Your task to perform on an android device: turn off sleep mode Image 0: 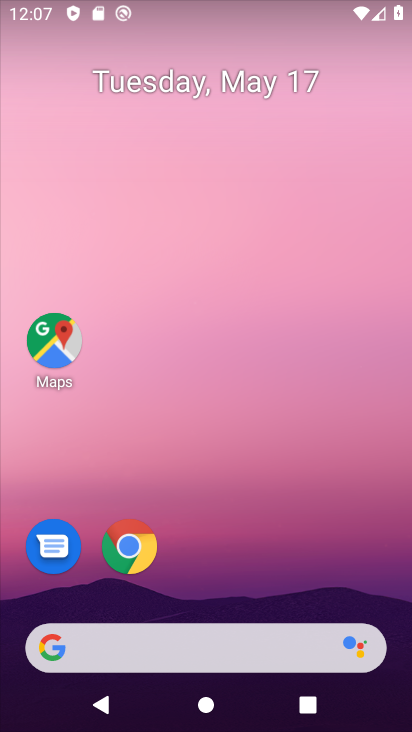
Step 0: drag from (243, 544) to (230, 0)
Your task to perform on an android device: turn off sleep mode Image 1: 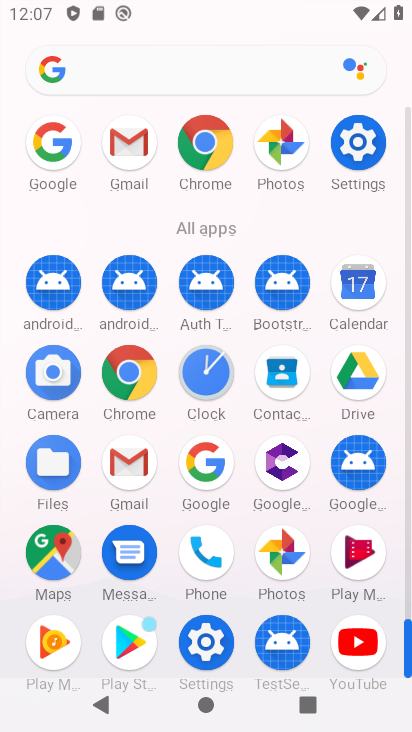
Step 1: click (344, 209)
Your task to perform on an android device: turn off sleep mode Image 2: 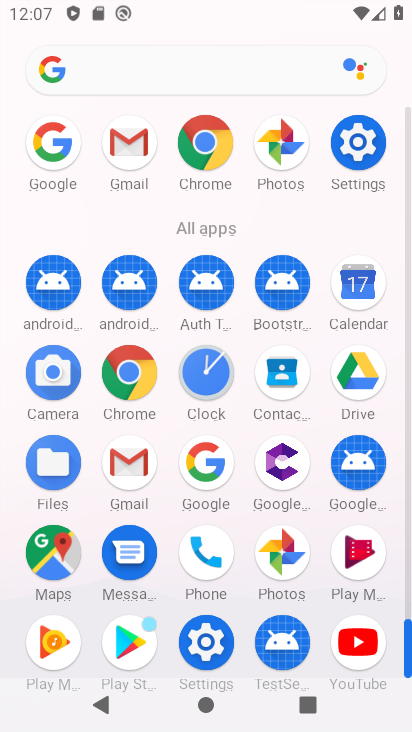
Step 2: click (375, 126)
Your task to perform on an android device: turn off sleep mode Image 3: 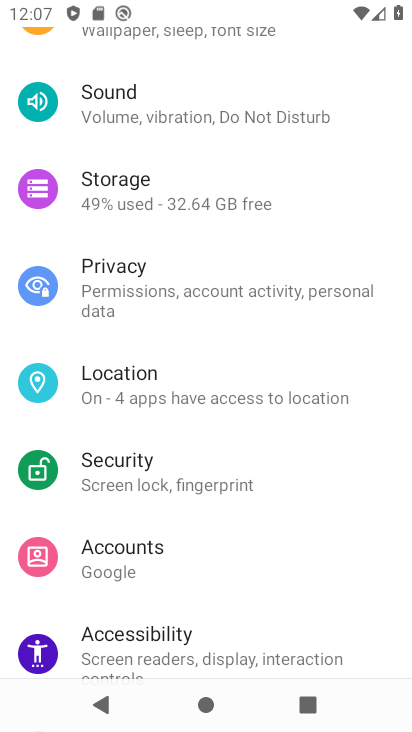
Step 3: drag from (178, 216) to (169, 525)
Your task to perform on an android device: turn off sleep mode Image 4: 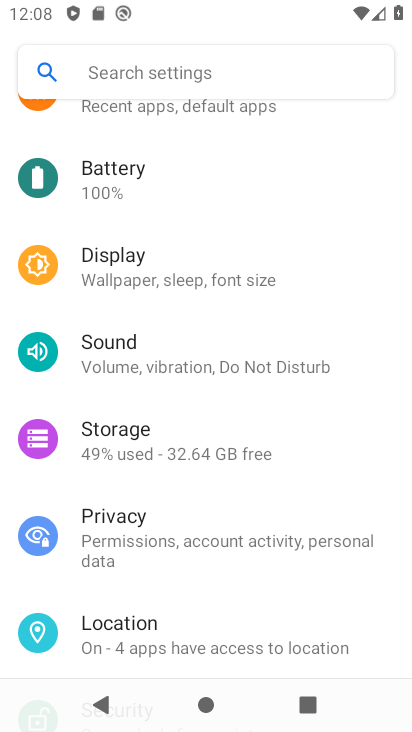
Step 4: click (145, 252)
Your task to perform on an android device: turn off sleep mode Image 5: 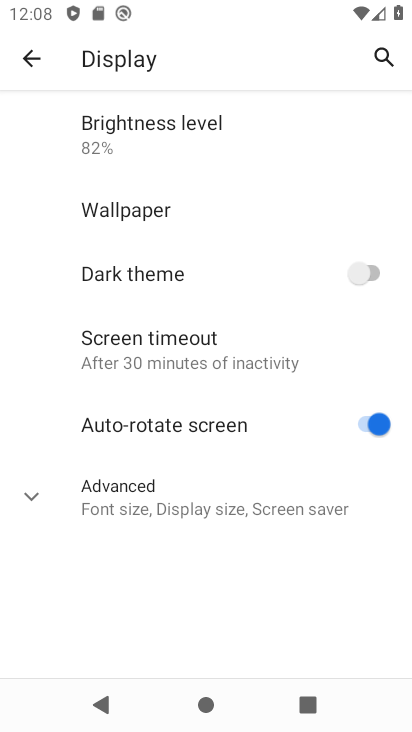
Step 5: click (129, 337)
Your task to perform on an android device: turn off sleep mode Image 6: 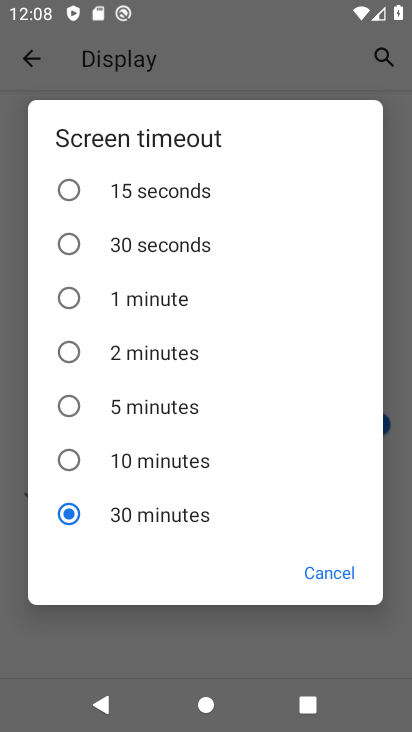
Step 6: task complete